Your task to perform on an android device: delete browsing data in the chrome app Image 0: 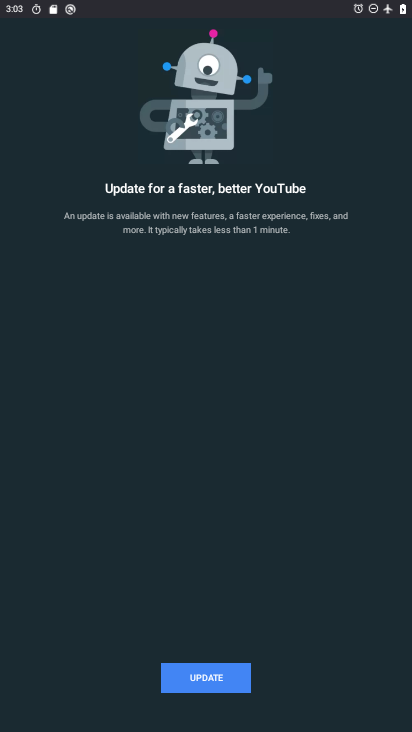
Step 0: press home button
Your task to perform on an android device: delete browsing data in the chrome app Image 1: 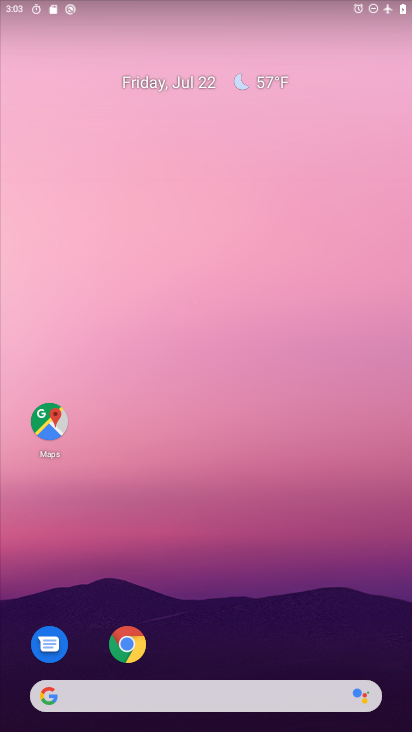
Step 1: click (141, 638)
Your task to perform on an android device: delete browsing data in the chrome app Image 2: 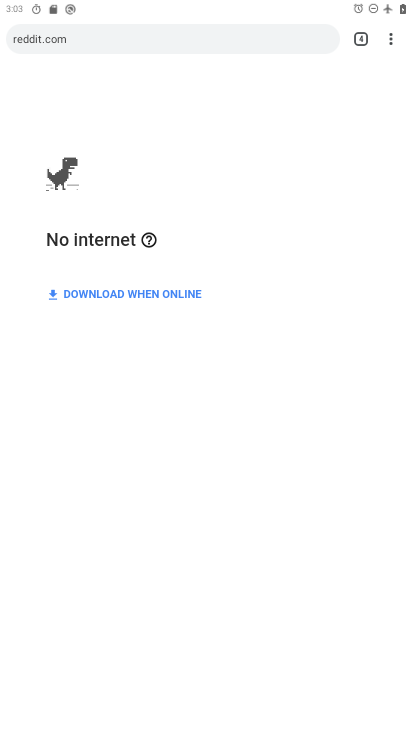
Step 2: click (385, 50)
Your task to perform on an android device: delete browsing data in the chrome app Image 3: 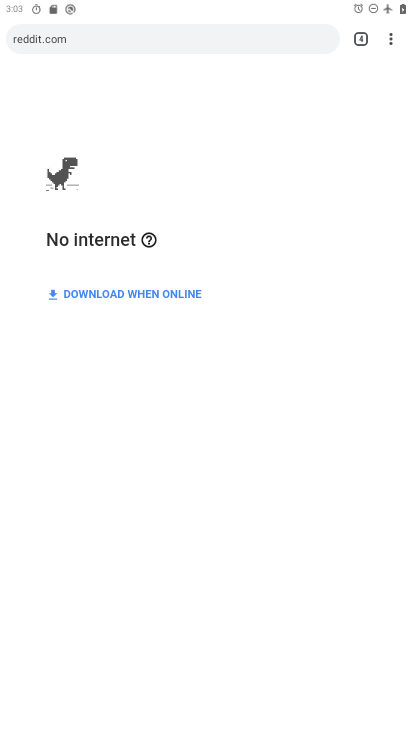
Step 3: click (392, 45)
Your task to perform on an android device: delete browsing data in the chrome app Image 4: 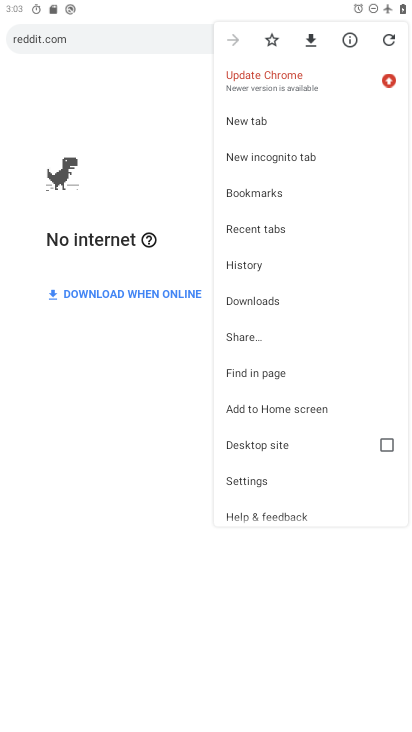
Step 4: click (266, 273)
Your task to perform on an android device: delete browsing data in the chrome app Image 5: 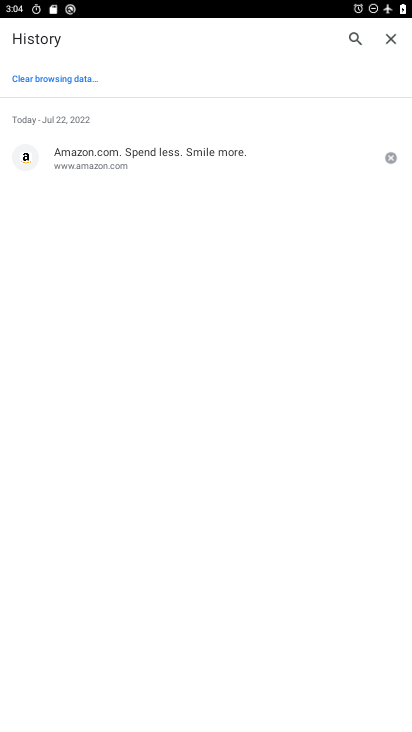
Step 5: click (62, 85)
Your task to perform on an android device: delete browsing data in the chrome app Image 6: 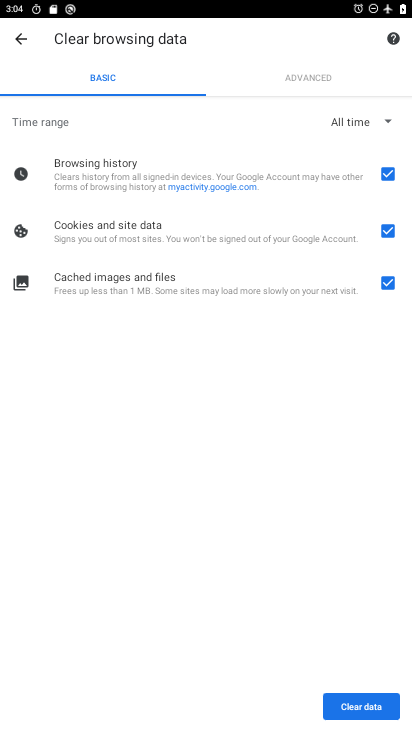
Step 6: click (363, 701)
Your task to perform on an android device: delete browsing data in the chrome app Image 7: 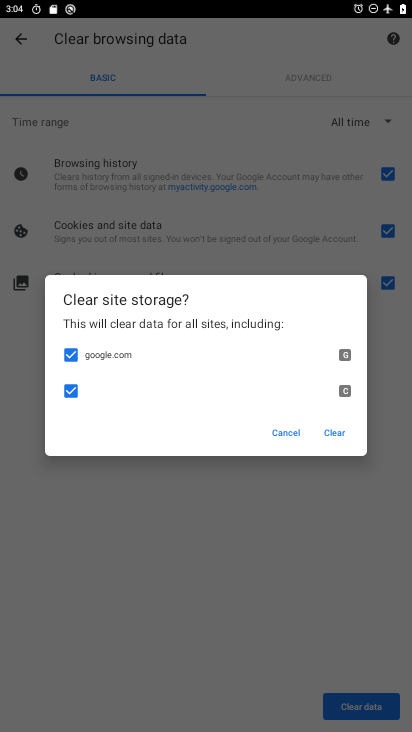
Step 7: click (335, 436)
Your task to perform on an android device: delete browsing data in the chrome app Image 8: 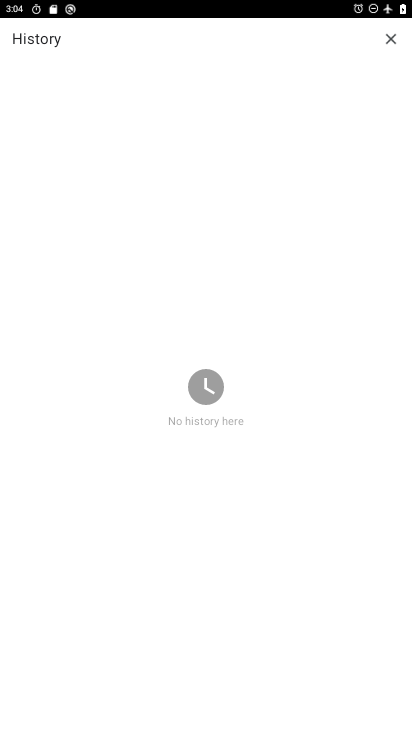
Step 8: task complete